Your task to perform on an android device: open sync settings in chrome Image 0: 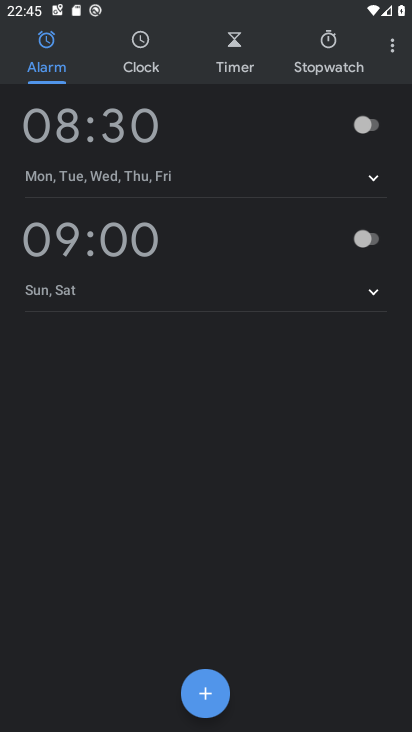
Step 0: press home button
Your task to perform on an android device: open sync settings in chrome Image 1: 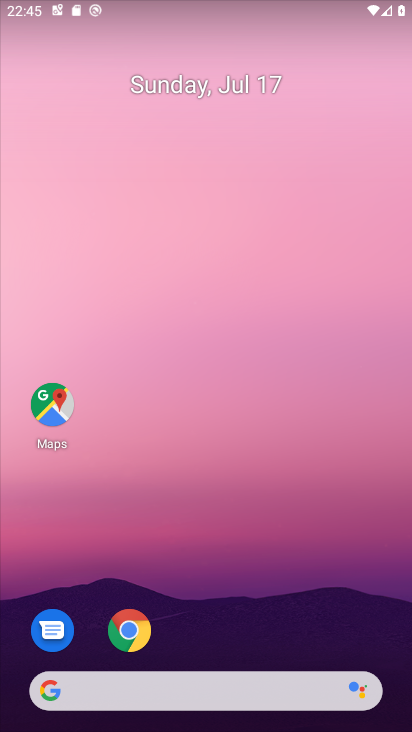
Step 1: click (131, 639)
Your task to perform on an android device: open sync settings in chrome Image 2: 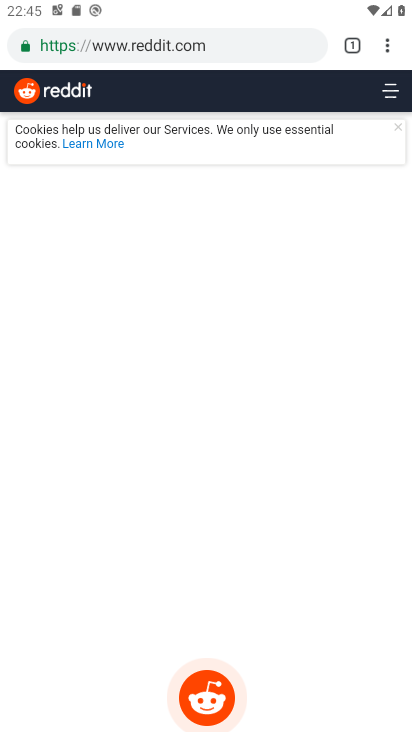
Step 2: click (382, 48)
Your task to perform on an android device: open sync settings in chrome Image 3: 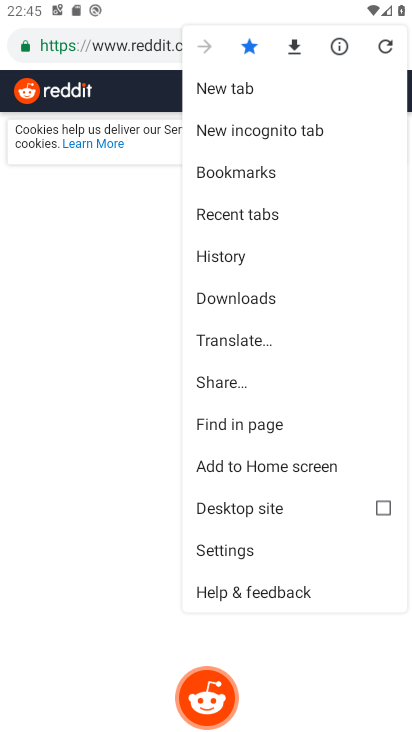
Step 3: click (215, 559)
Your task to perform on an android device: open sync settings in chrome Image 4: 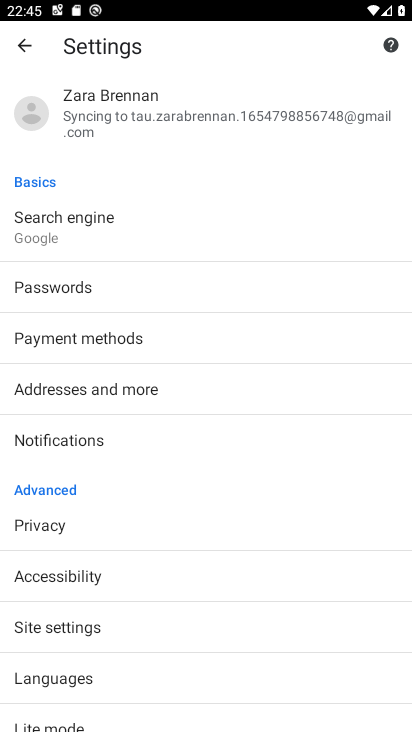
Step 4: click (157, 116)
Your task to perform on an android device: open sync settings in chrome Image 5: 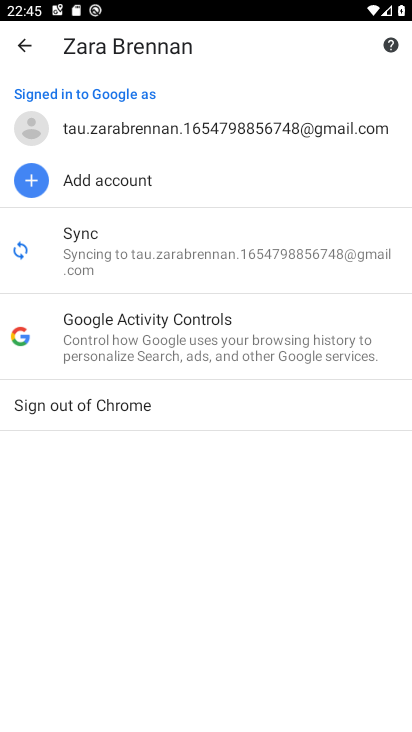
Step 5: click (133, 251)
Your task to perform on an android device: open sync settings in chrome Image 6: 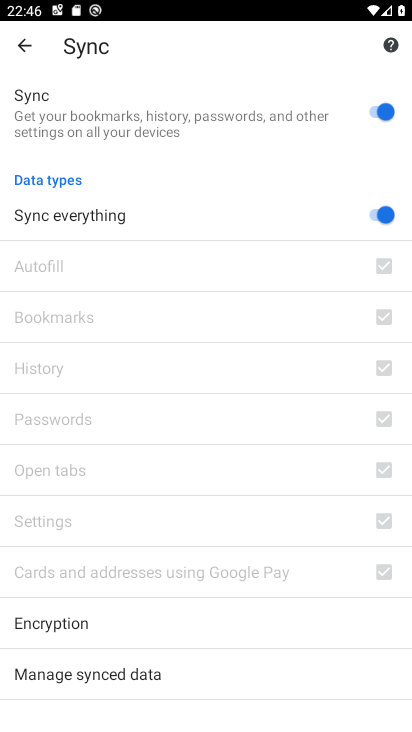
Step 6: task complete